Your task to perform on an android device: delete a single message in the gmail app Image 0: 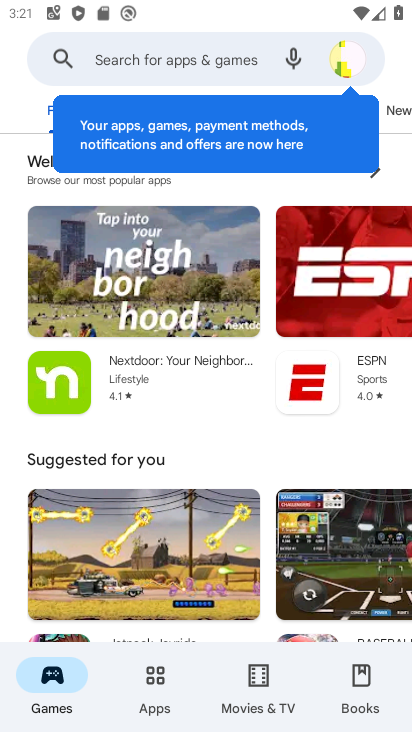
Step 0: press home button
Your task to perform on an android device: delete a single message in the gmail app Image 1: 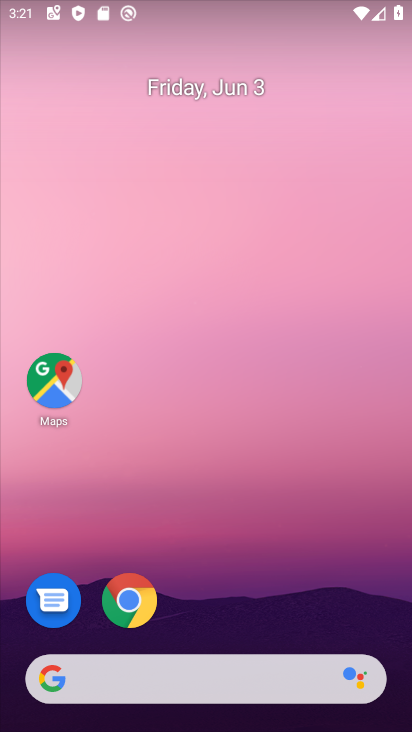
Step 1: drag from (232, 613) to (310, 10)
Your task to perform on an android device: delete a single message in the gmail app Image 2: 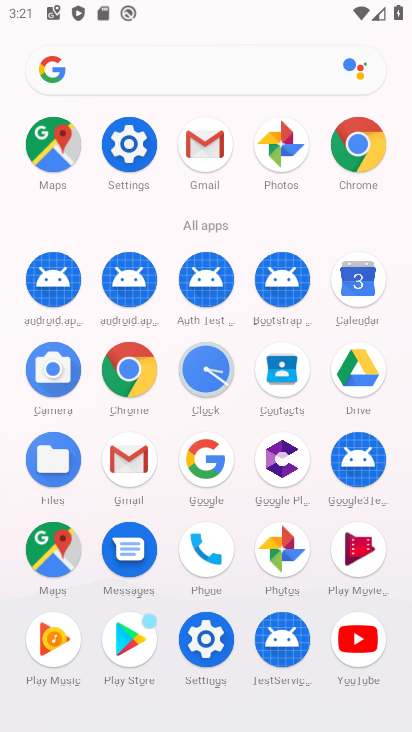
Step 2: click (137, 478)
Your task to perform on an android device: delete a single message in the gmail app Image 3: 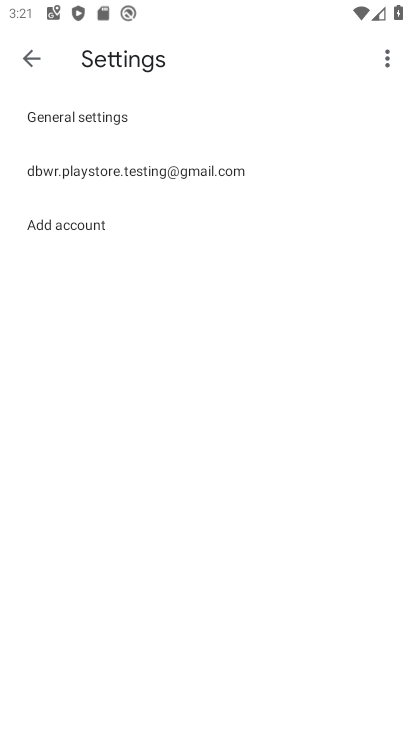
Step 3: click (26, 55)
Your task to perform on an android device: delete a single message in the gmail app Image 4: 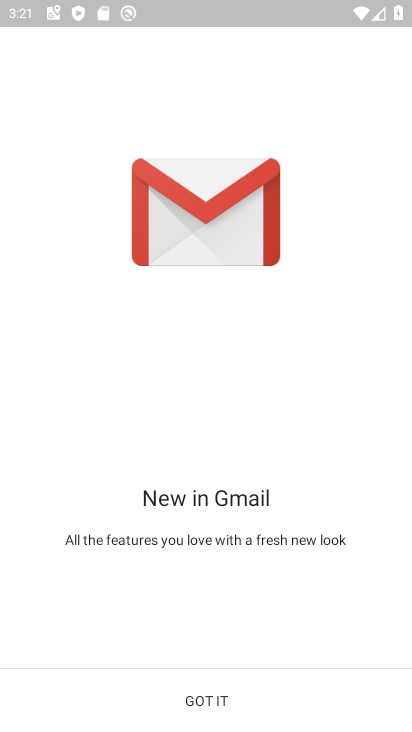
Step 4: click (219, 693)
Your task to perform on an android device: delete a single message in the gmail app Image 5: 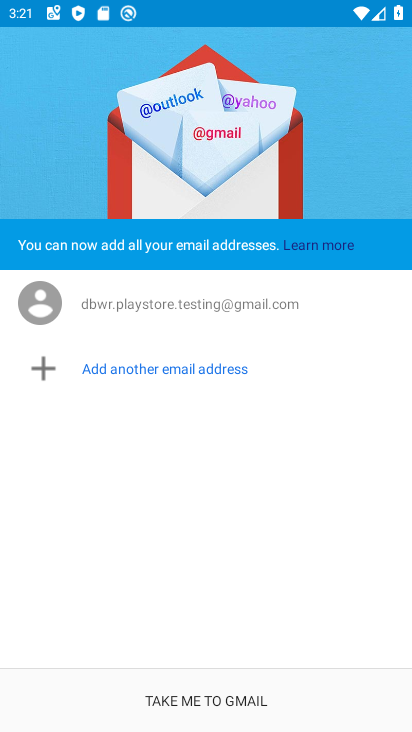
Step 5: click (239, 700)
Your task to perform on an android device: delete a single message in the gmail app Image 6: 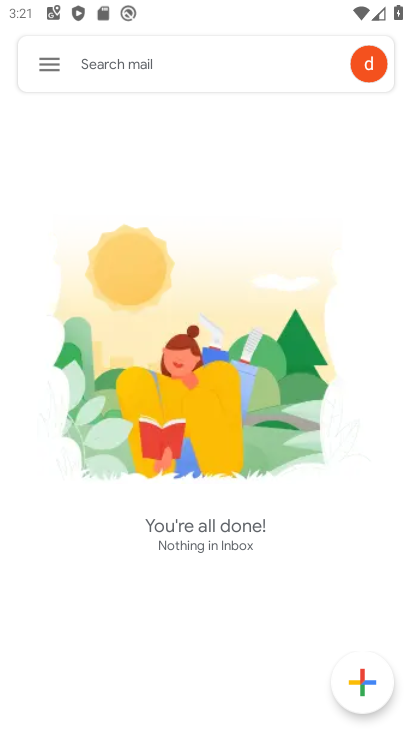
Step 6: click (41, 54)
Your task to perform on an android device: delete a single message in the gmail app Image 7: 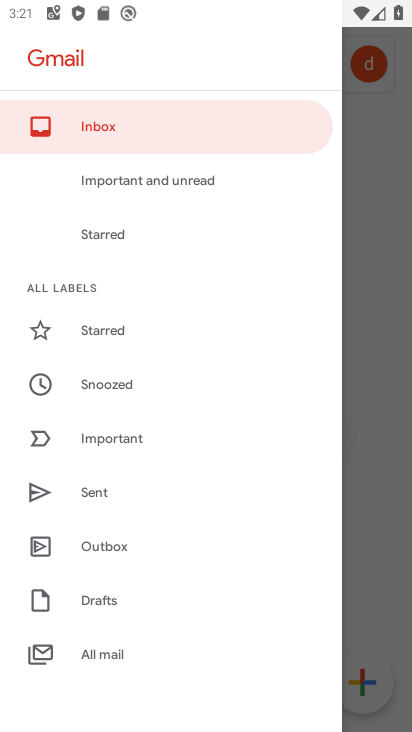
Step 7: click (107, 642)
Your task to perform on an android device: delete a single message in the gmail app Image 8: 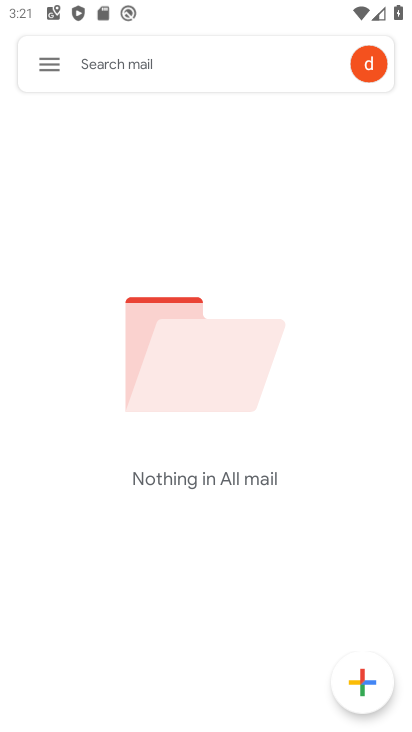
Step 8: task complete